Your task to perform on an android device: When is my next appointment? Image 0: 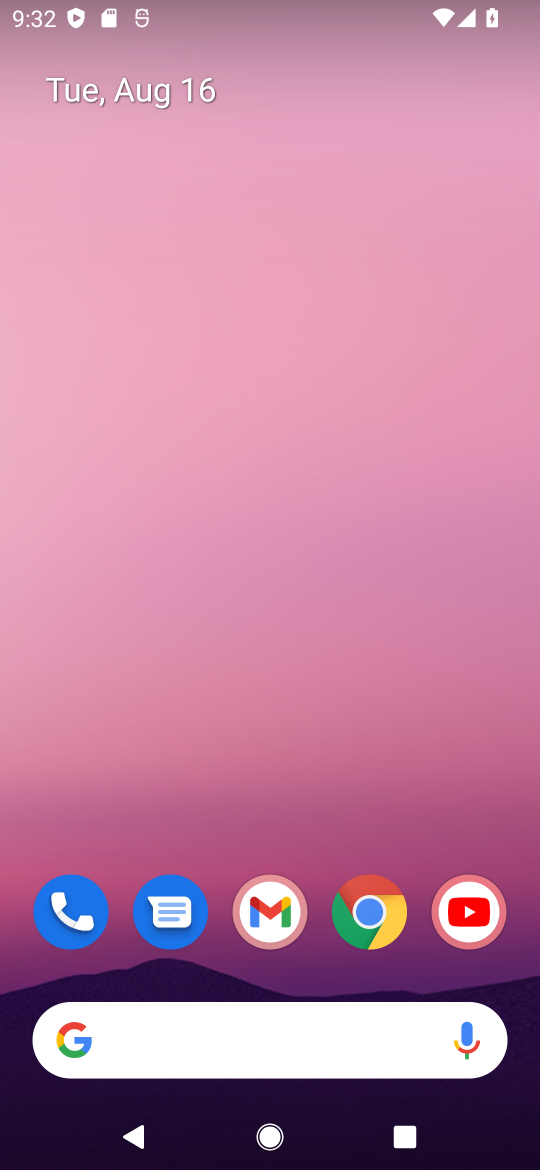
Step 0: click (183, 114)
Your task to perform on an android device: When is my next appointment? Image 1: 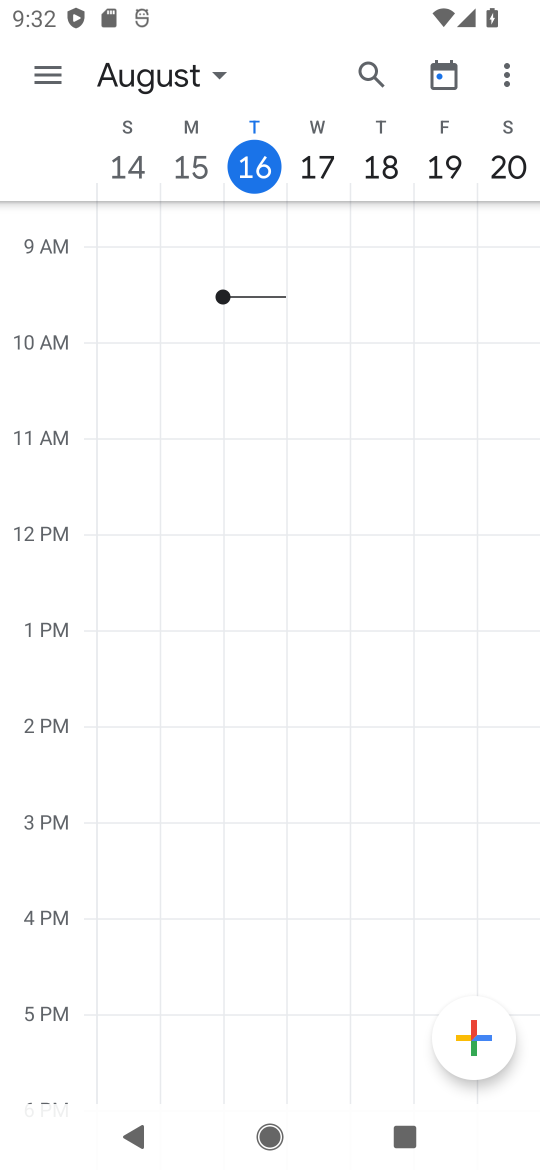
Step 1: task complete